Your task to perform on an android device: clear history in the chrome app Image 0: 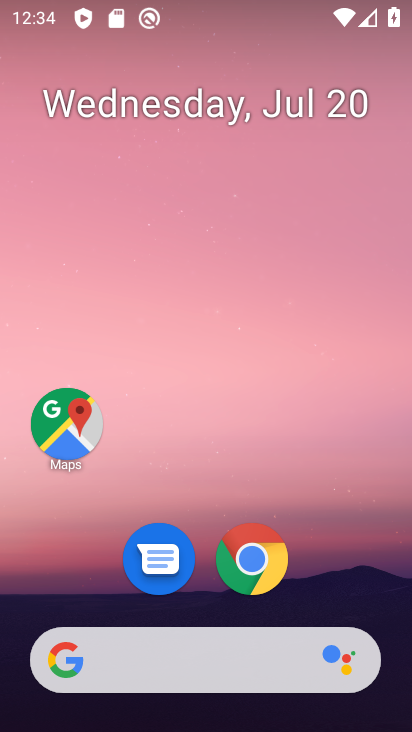
Step 0: drag from (379, 576) to (393, 153)
Your task to perform on an android device: clear history in the chrome app Image 1: 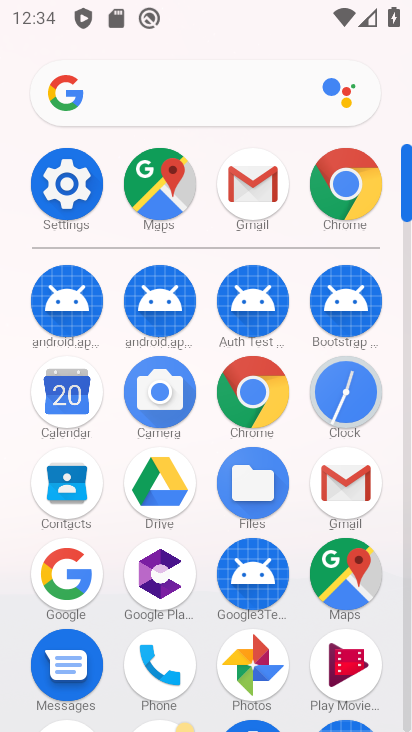
Step 1: click (269, 408)
Your task to perform on an android device: clear history in the chrome app Image 2: 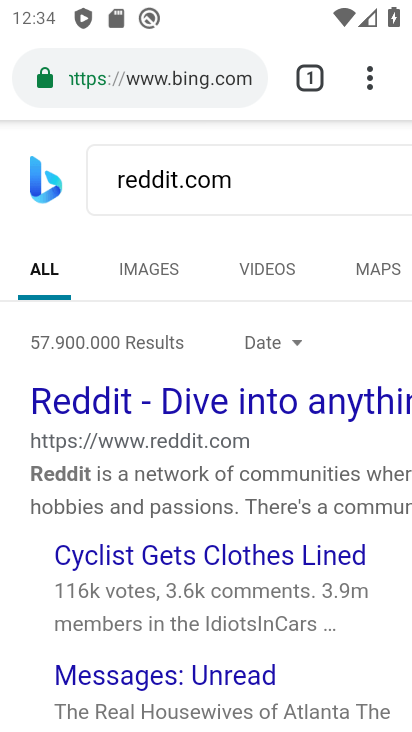
Step 2: click (371, 81)
Your task to perform on an android device: clear history in the chrome app Image 3: 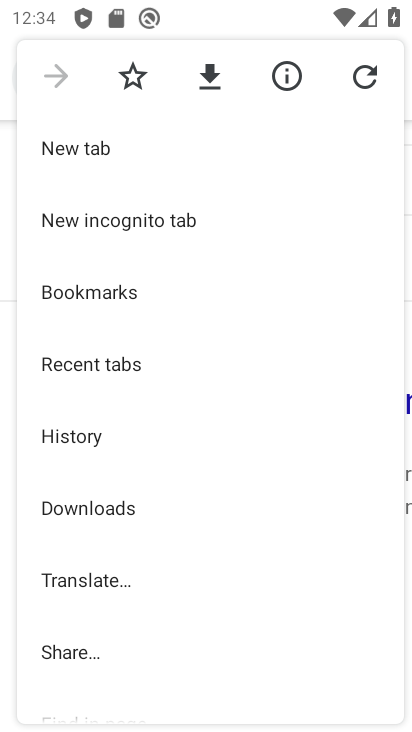
Step 3: click (89, 443)
Your task to perform on an android device: clear history in the chrome app Image 4: 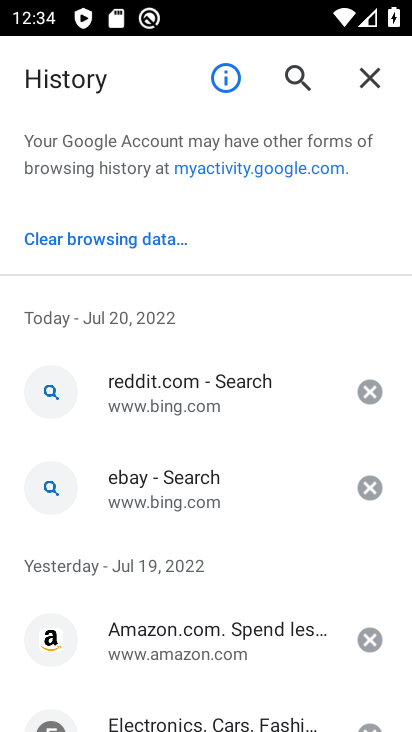
Step 4: drag from (298, 536) to (300, 325)
Your task to perform on an android device: clear history in the chrome app Image 5: 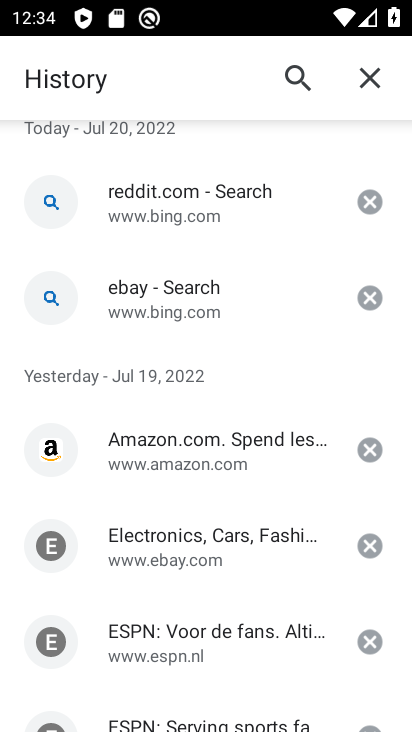
Step 5: drag from (288, 508) to (290, 300)
Your task to perform on an android device: clear history in the chrome app Image 6: 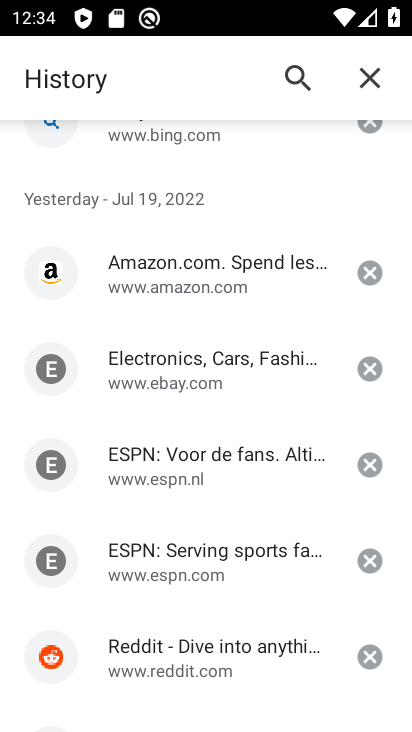
Step 6: drag from (292, 562) to (292, 373)
Your task to perform on an android device: clear history in the chrome app Image 7: 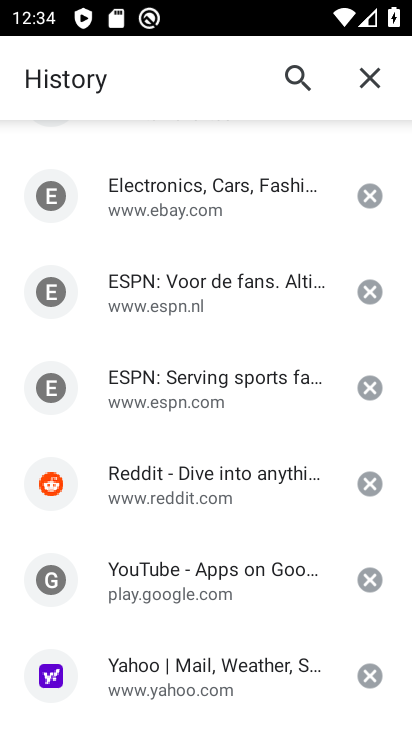
Step 7: drag from (302, 531) to (285, 310)
Your task to perform on an android device: clear history in the chrome app Image 8: 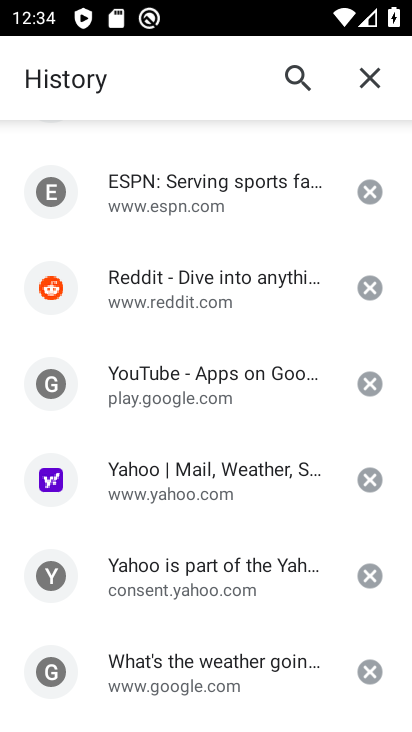
Step 8: drag from (317, 528) to (320, 338)
Your task to perform on an android device: clear history in the chrome app Image 9: 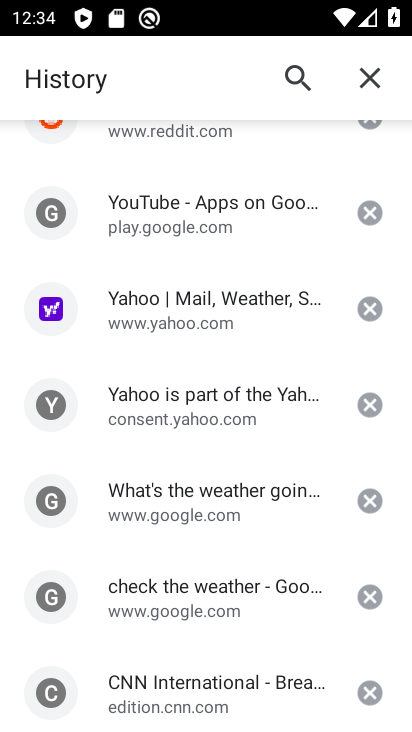
Step 9: drag from (305, 538) to (297, 312)
Your task to perform on an android device: clear history in the chrome app Image 10: 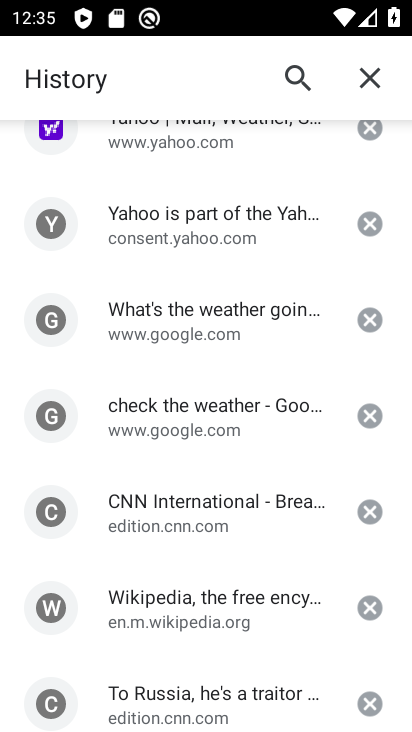
Step 10: drag from (264, 200) to (265, 391)
Your task to perform on an android device: clear history in the chrome app Image 11: 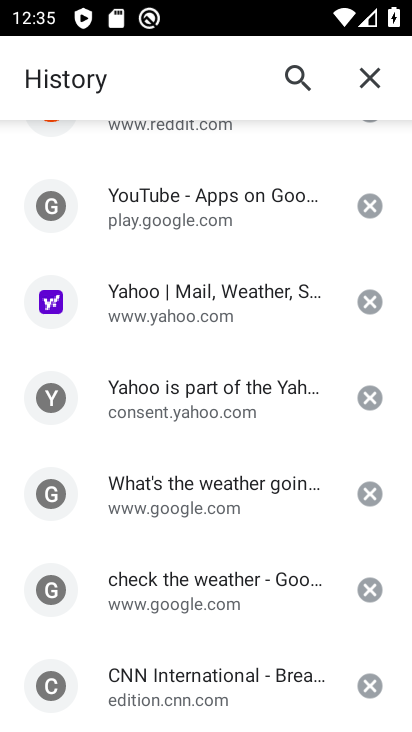
Step 11: drag from (250, 215) to (279, 499)
Your task to perform on an android device: clear history in the chrome app Image 12: 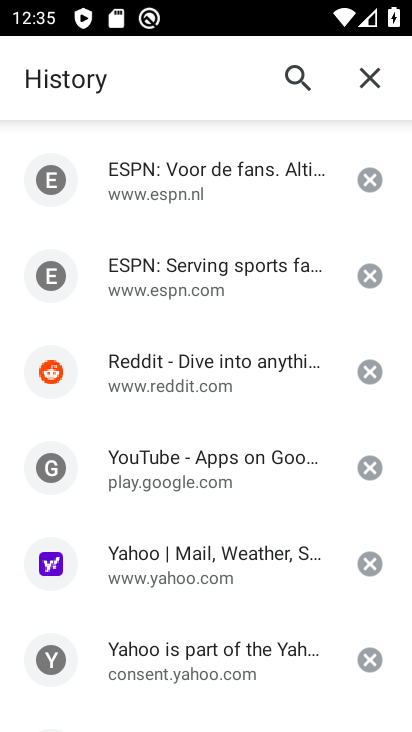
Step 12: drag from (258, 184) to (283, 433)
Your task to perform on an android device: clear history in the chrome app Image 13: 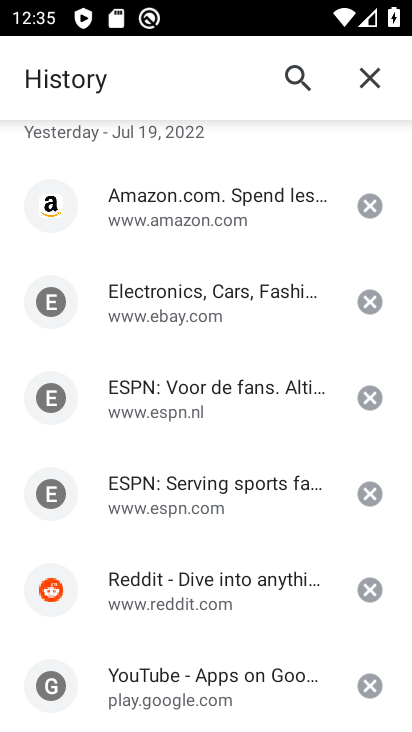
Step 13: drag from (245, 151) to (252, 371)
Your task to perform on an android device: clear history in the chrome app Image 14: 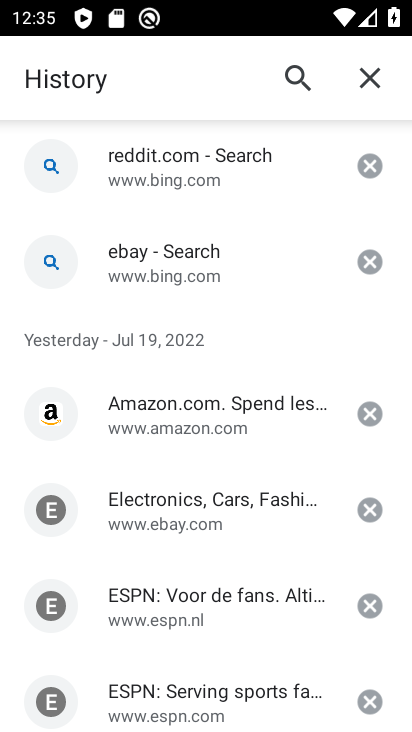
Step 14: drag from (293, 146) to (289, 395)
Your task to perform on an android device: clear history in the chrome app Image 15: 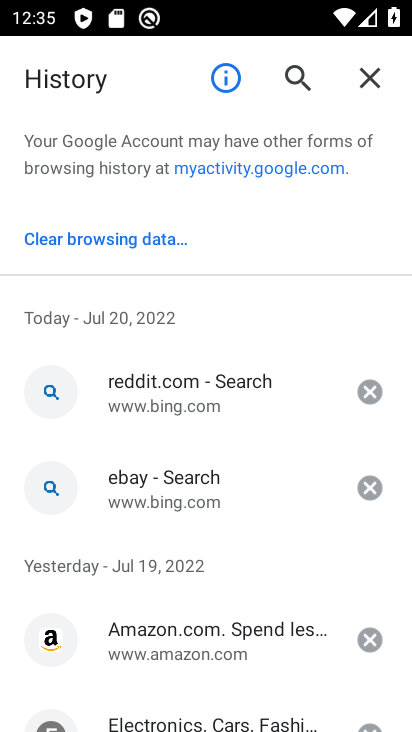
Step 15: click (125, 242)
Your task to perform on an android device: clear history in the chrome app Image 16: 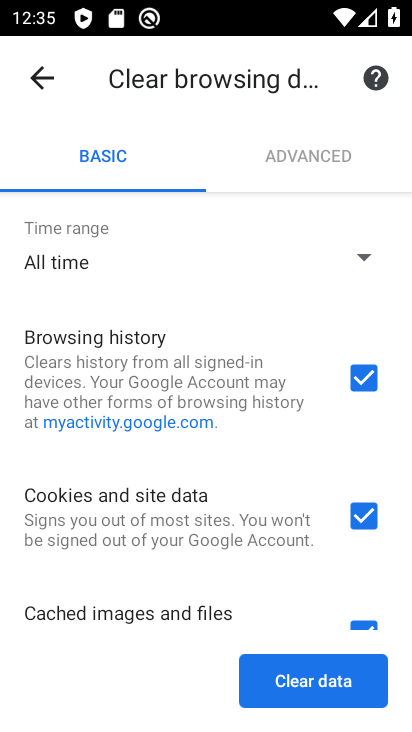
Step 16: click (307, 679)
Your task to perform on an android device: clear history in the chrome app Image 17: 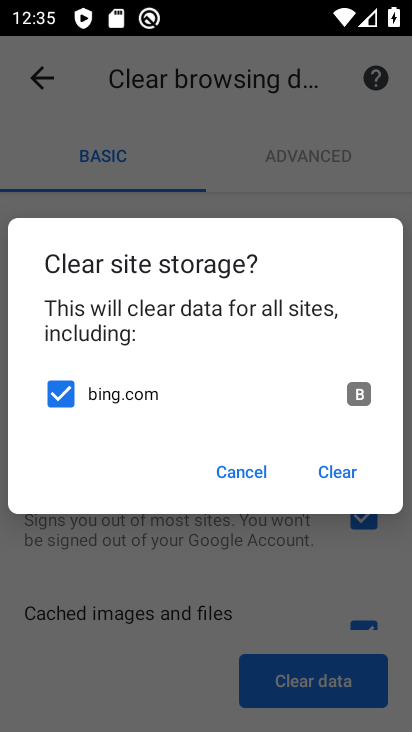
Step 17: click (348, 470)
Your task to perform on an android device: clear history in the chrome app Image 18: 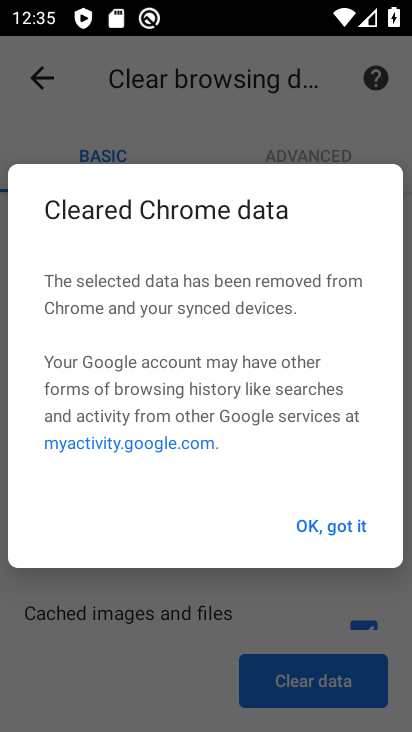
Step 18: click (349, 542)
Your task to perform on an android device: clear history in the chrome app Image 19: 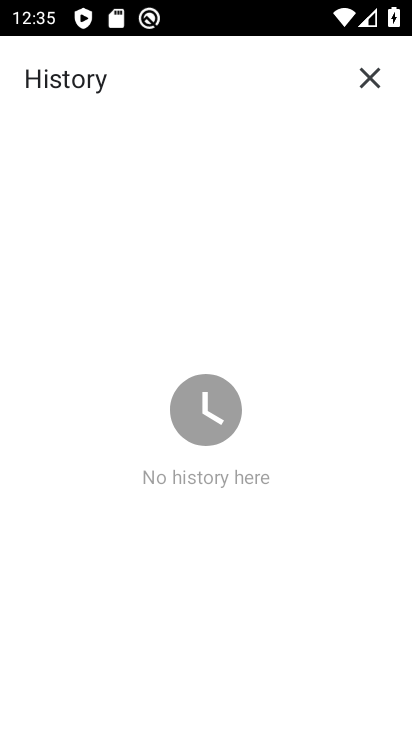
Step 19: task complete